Your task to perform on an android device: Open CNN.com Image 0: 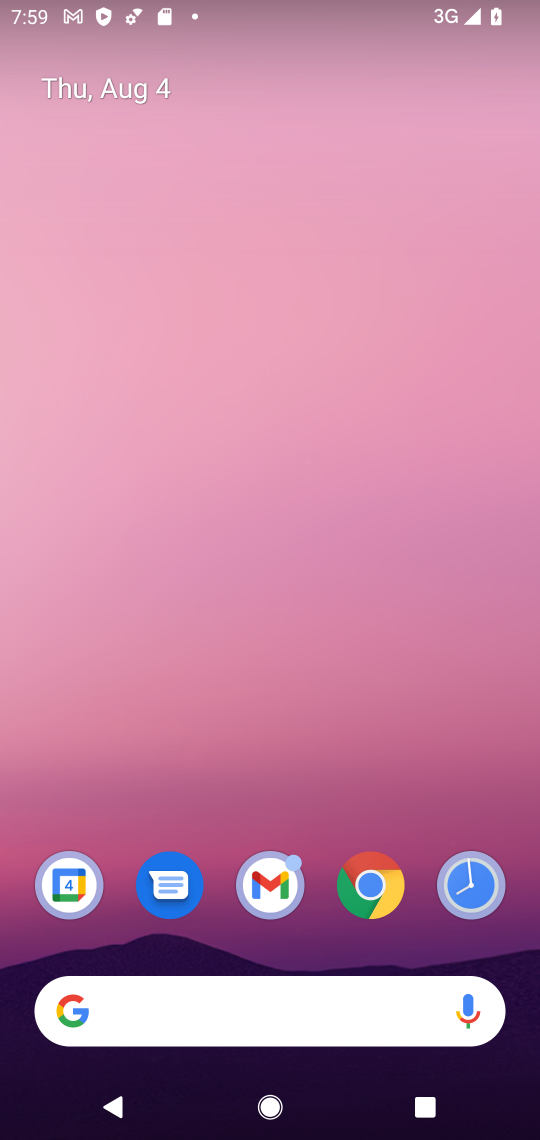
Step 0: press home button
Your task to perform on an android device: Open CNN.com Image 1: 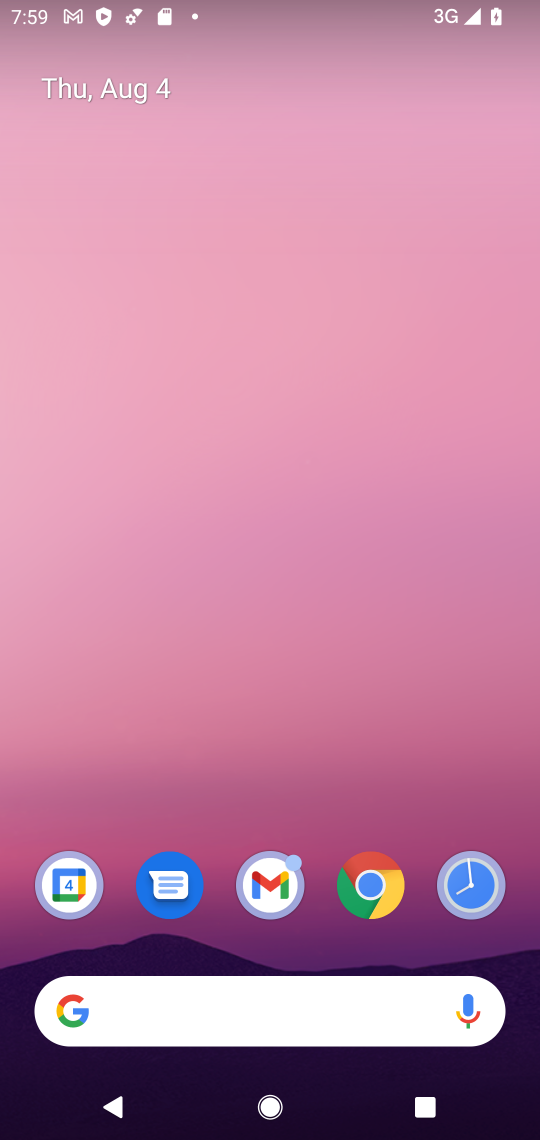
Step 1: click (384, 900)
Your task to perform on an android device: Open CNN.com Image 2: 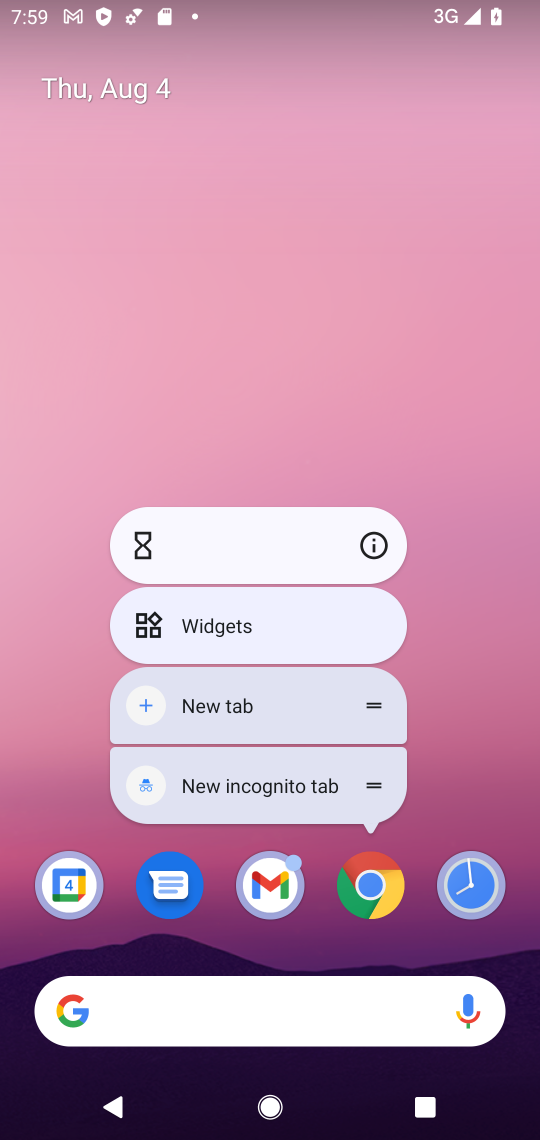
Step 2: click (366, 875)
Your task to perform on an android device: Open CNN.com Image 3: 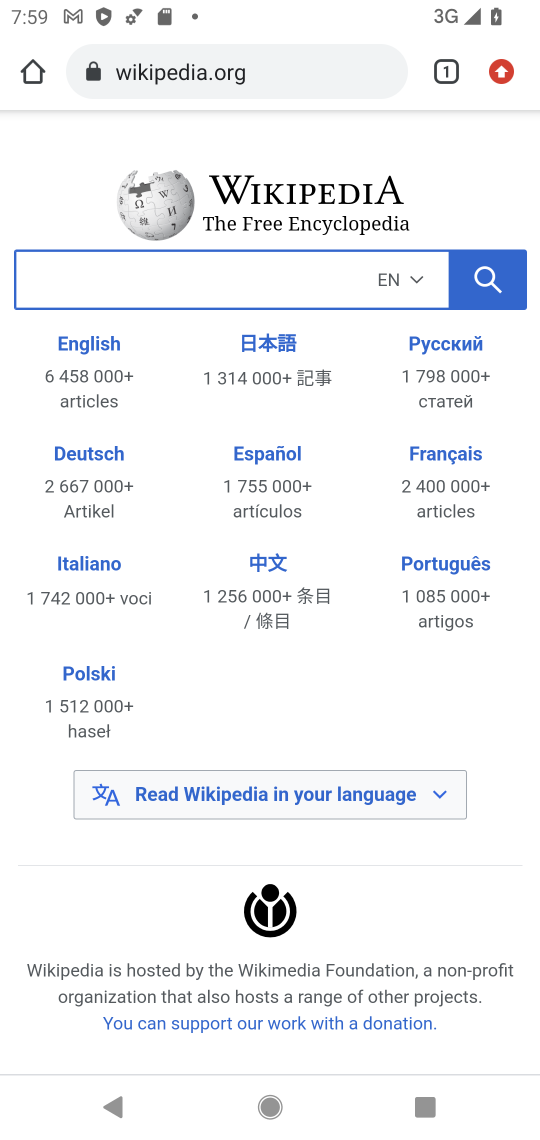
Step 3: click (231, 65)
Your task to perform on an android device: Open CNN.com Image 4: 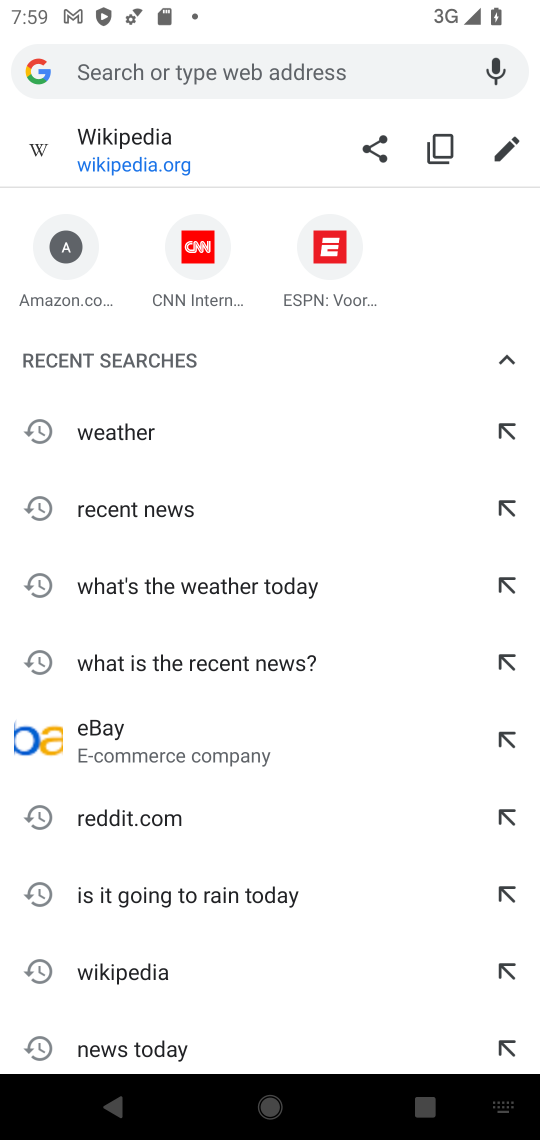
Step 4: type " CNN.com"
Your task to perform on an android device: Open CNN.com Image 5: 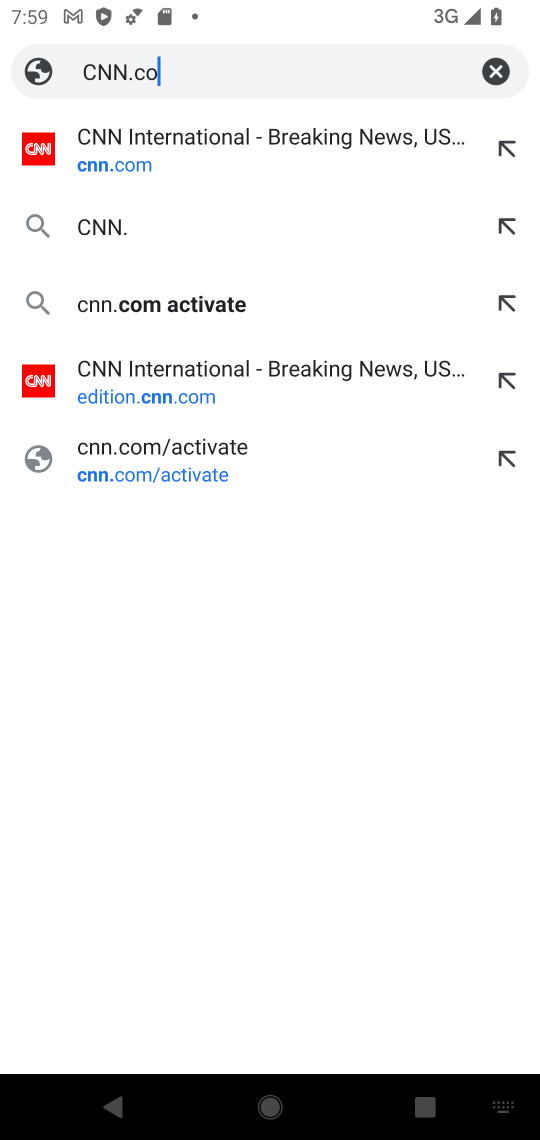
Step 5: type ""
Your task to perform on an android device: Open CNN.com Image 6: 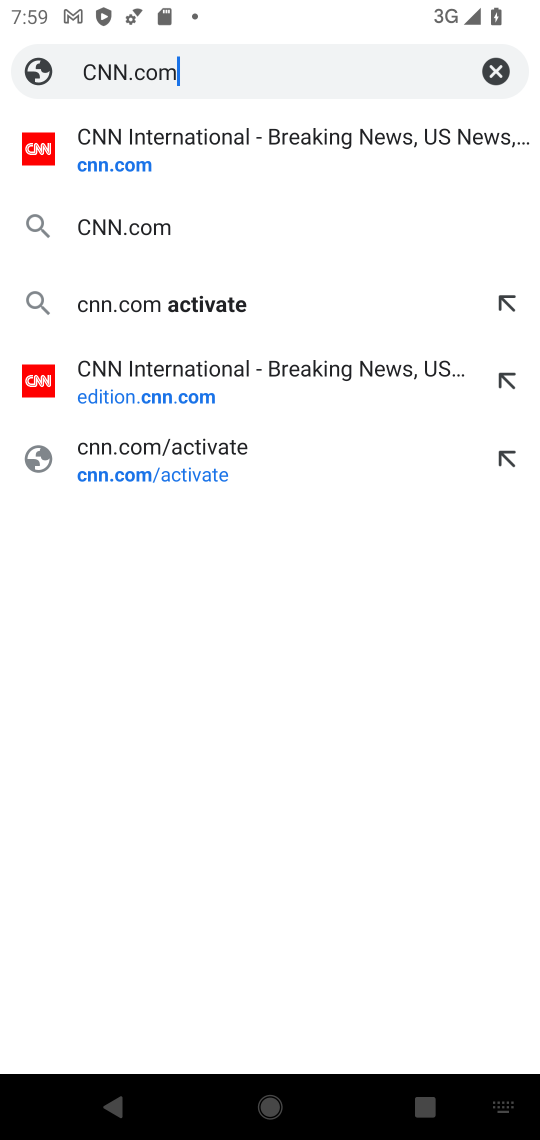
Step 6: click (115, 153)
Your task to perform on an android device: Open CNN.com Image 7: 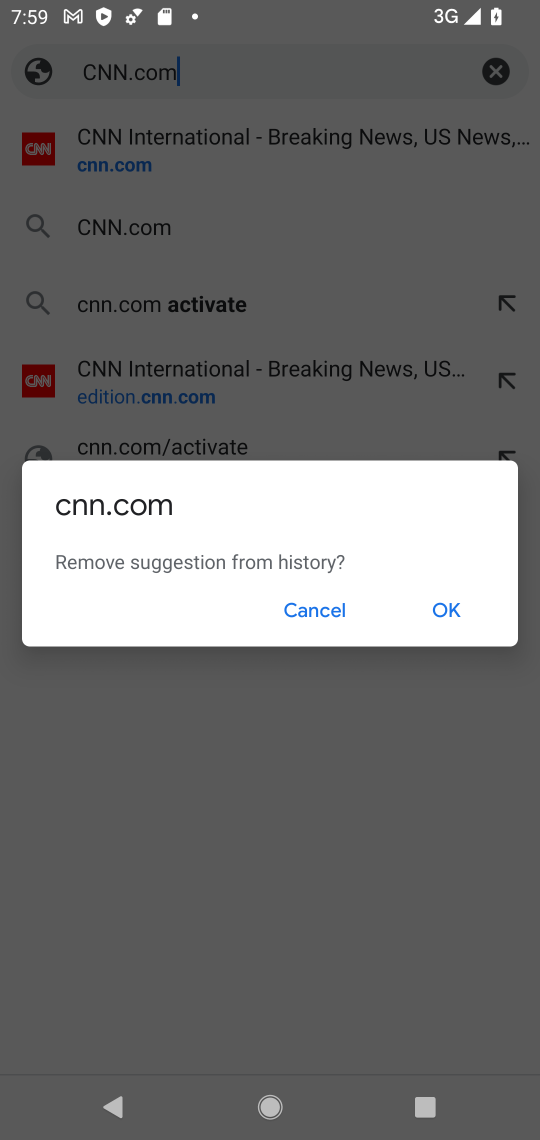
Step 7: click (322, 603)
Your task to perform on an android device: Open CNN.com Image 8: 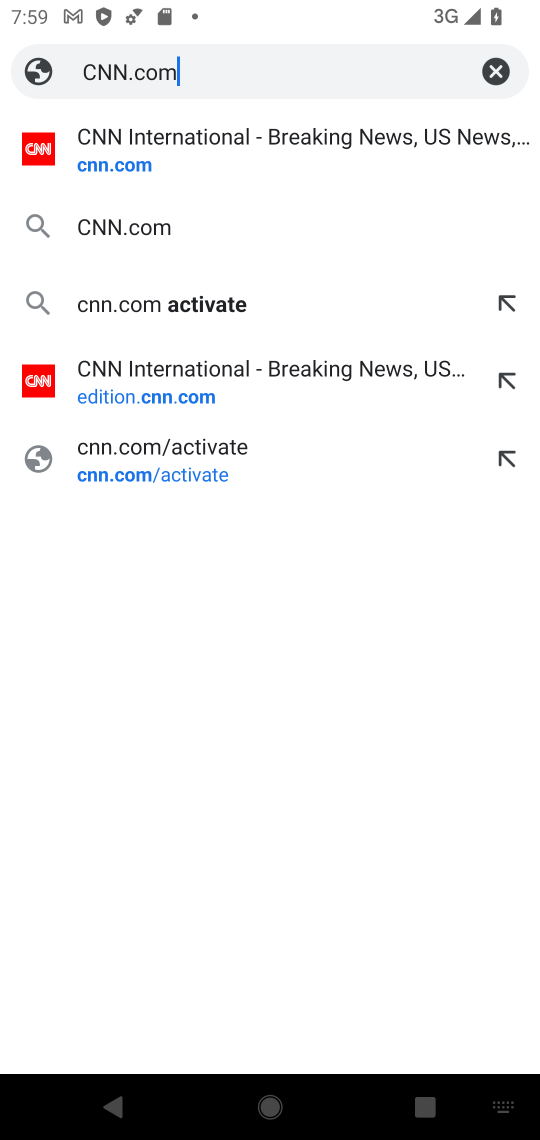
Step 8: click (153, 166)
Your task to perform on an android device: Open CNN.com Image 9: 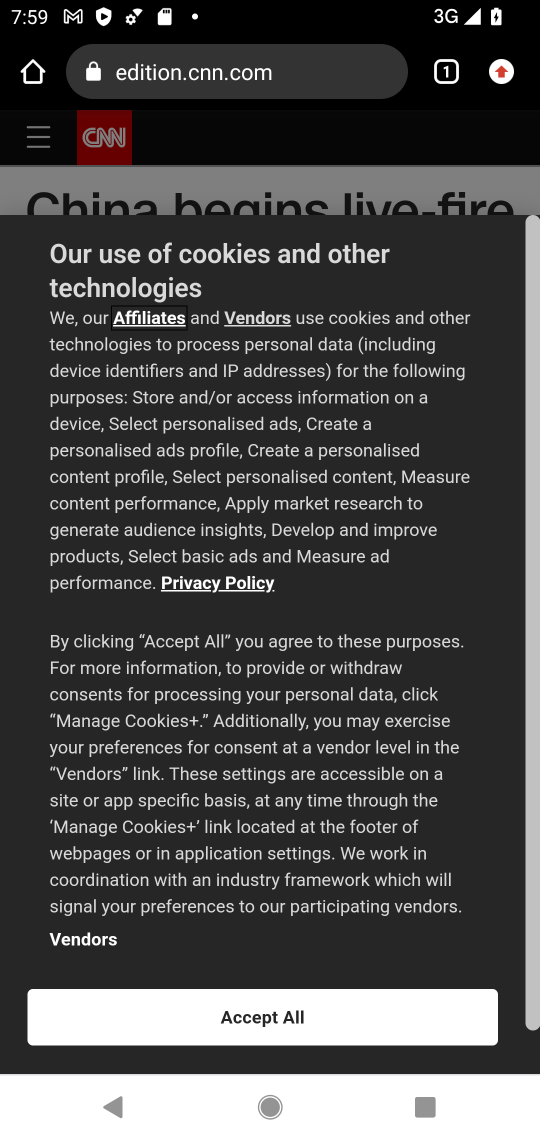
Step 9: task complete